Your task to perform on an android device: install app "Clock" Image 0: 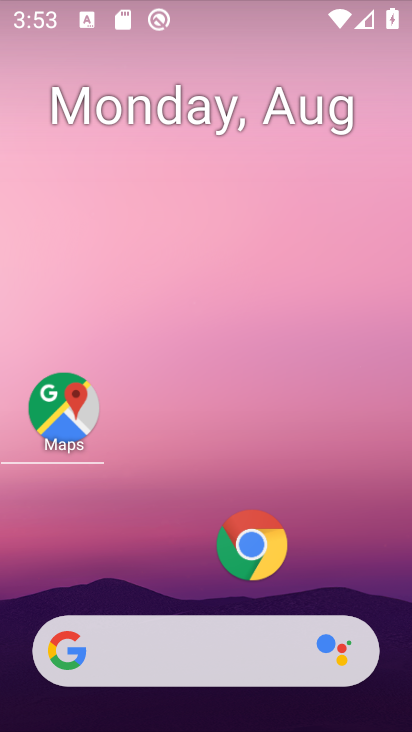
Step 0: drag from (228, 395) to (256, 46)
Your task to perform on an android device: install app "Clock" Image 1: 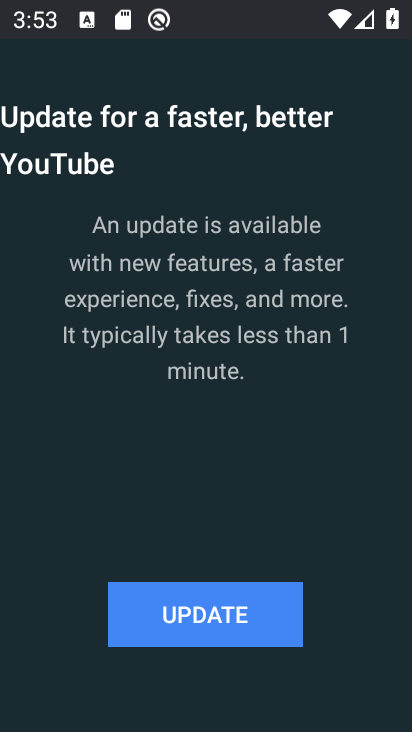
Step 1: press home button
Your task to perform on an android device: install app "Clock" Image 2: 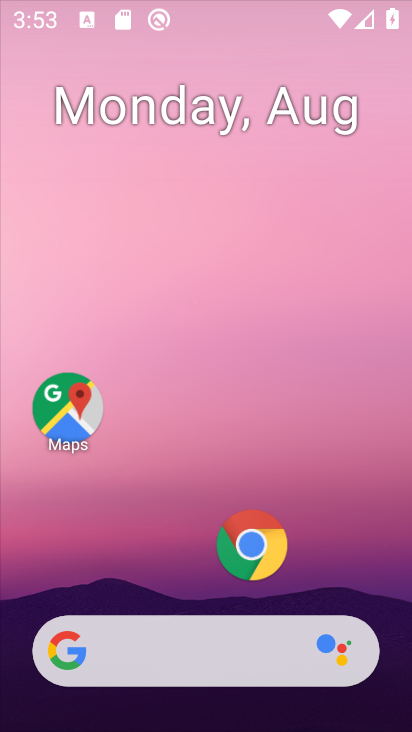
Step 2: drag from (196, 510) to (253, 18)
Your task to perform on an android device: install app "Clock" Image 3: 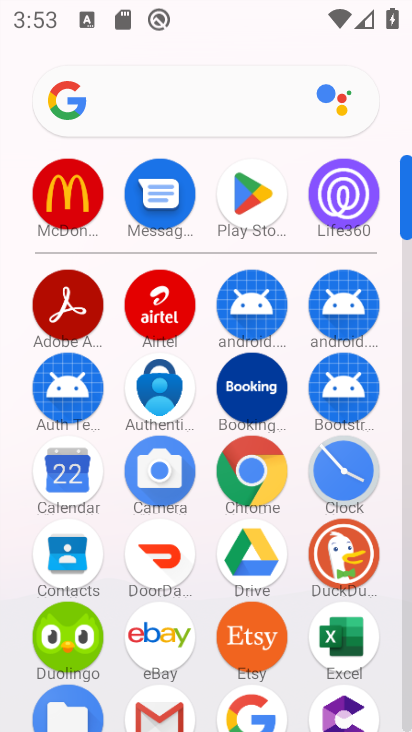
Step 3: click (257, 174)
Your task to perform on an android device: install app "Clock" Image 4: 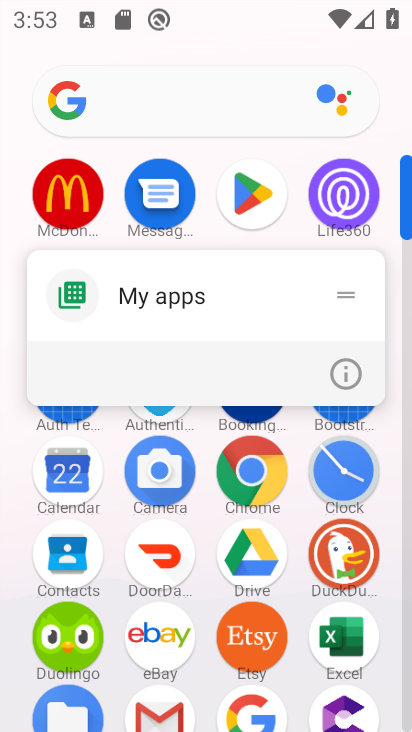
Step 4: click (259, 190)
Your task to perform on an android device: install app "Clock" Image 5: 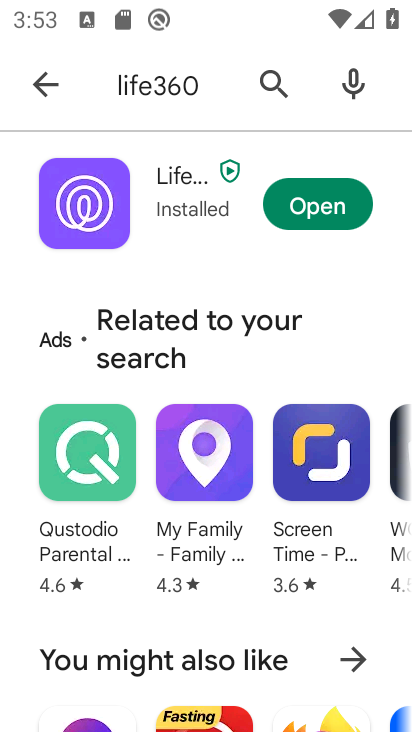
Step 5: click (291, 74)
Your task to perform on an android device: install app "Clock" Image 6: 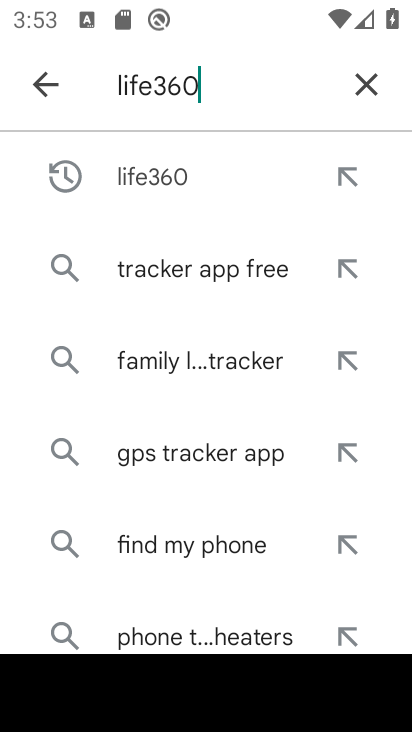
Step 6: click (370, 81)
Your task to perform on an android device: install app "Clock" Image 7: 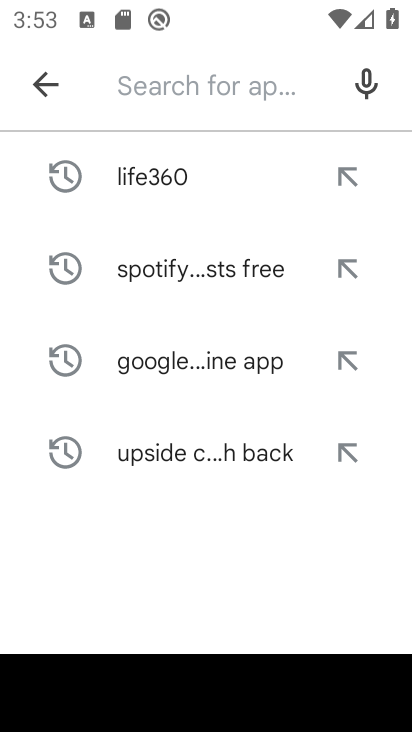
Step 7: click (148, 90)
Your task to perform on an android device: install app "Clock" Image 8: 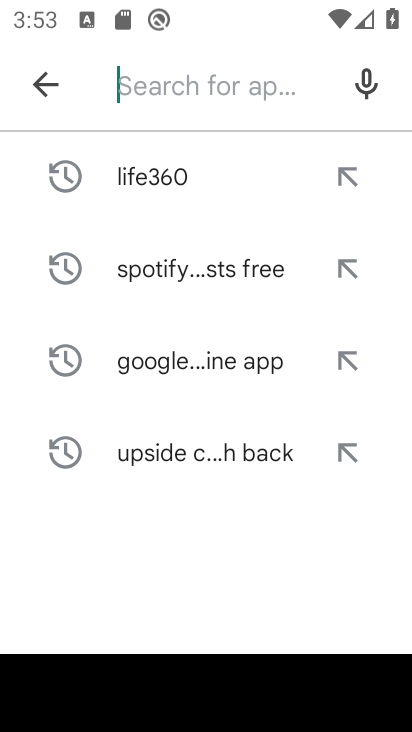
Step 8: type "Clock"
Your task to perform on an android device: install app "Clock" Image 9: 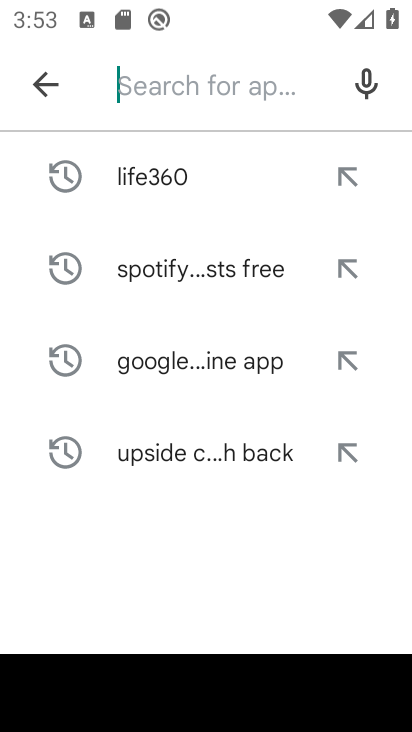
Step 9: click (162, 553)
Your task to perform on an android device: install app "Clock" Image 10: 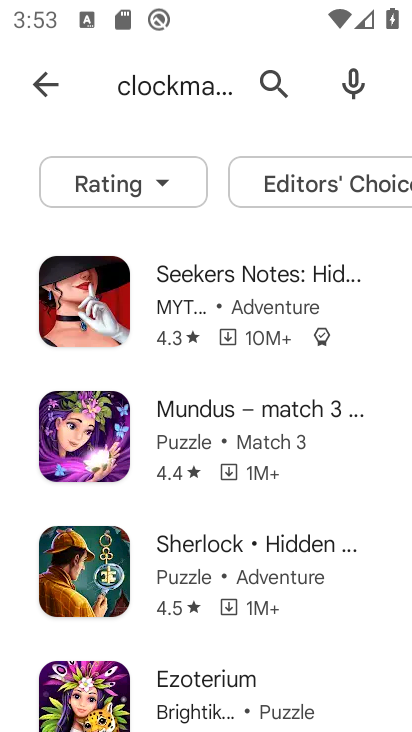
Step 10: click (265, 87)
Your task to perform on an android device: install app "Clock" Image 11: 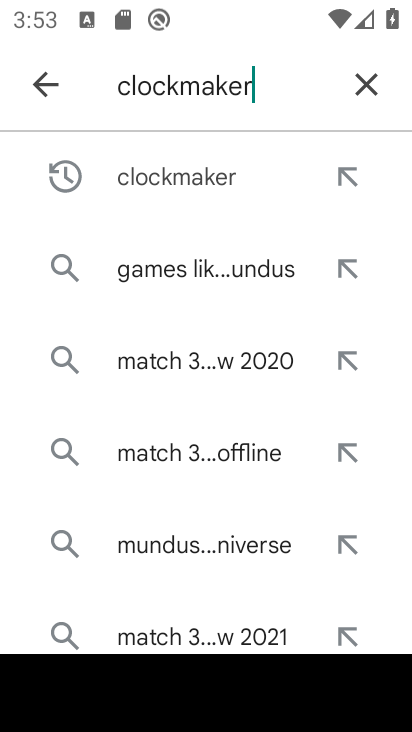
Step 11: click (367, 84)
Your task to perform on an android device: install app "Clock" Image 12: 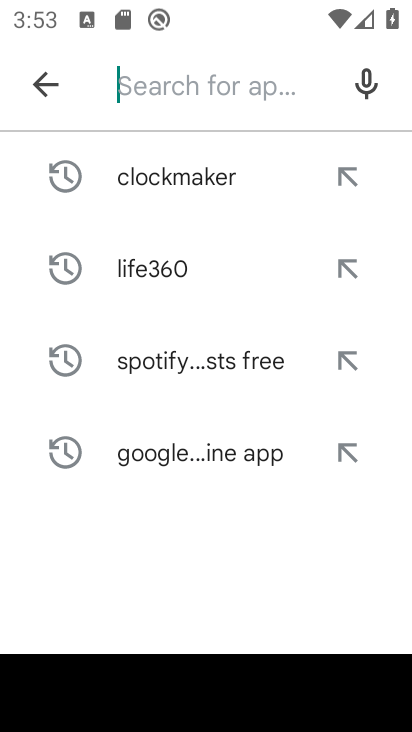
Step 12: type "Clock"
Your task to perform on an android device: install app "Clock" Image 13: 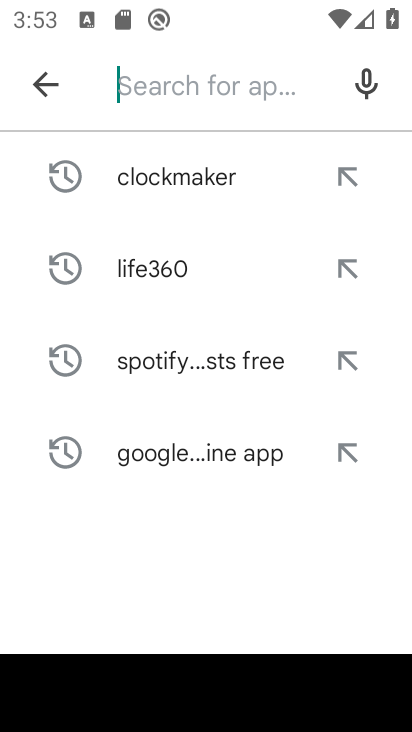
Step 13: click (225, 571)
Your task to perform on an android device: install app "Clock" Image 14: 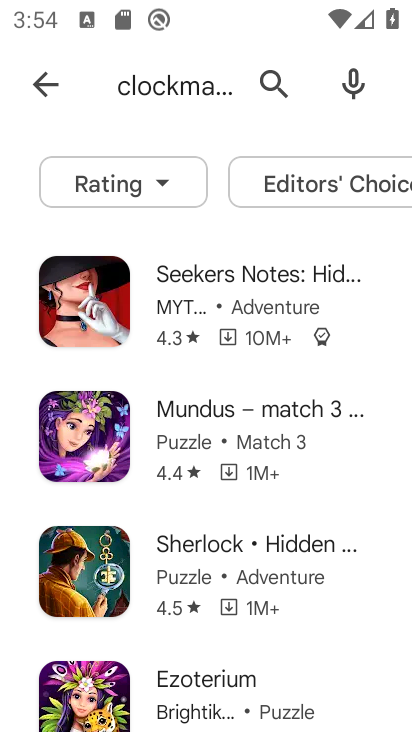
Step 14: click (265, 69)
Your task to perform on an android device: install app "Clock" Image 15: 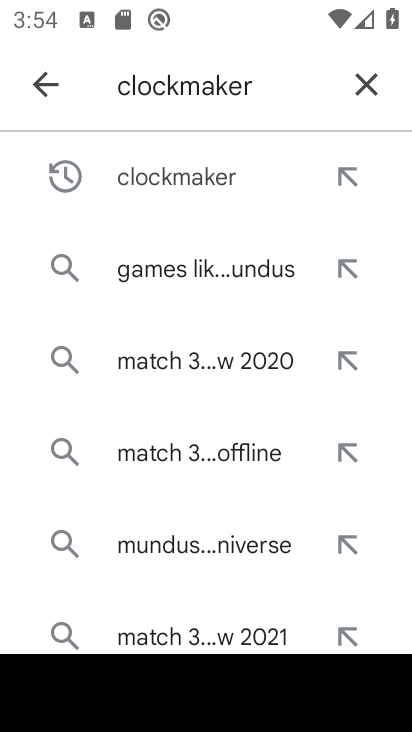
Step 15: click (366, 75)
Your task to perform on an android device: install app "Clock" Image 16: 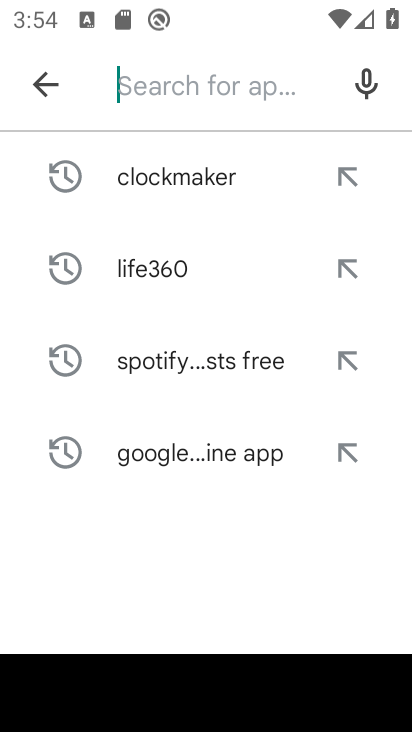
Step 16: type "Clock"
Your task to perform on an android device: install app "Clock" Image 17: 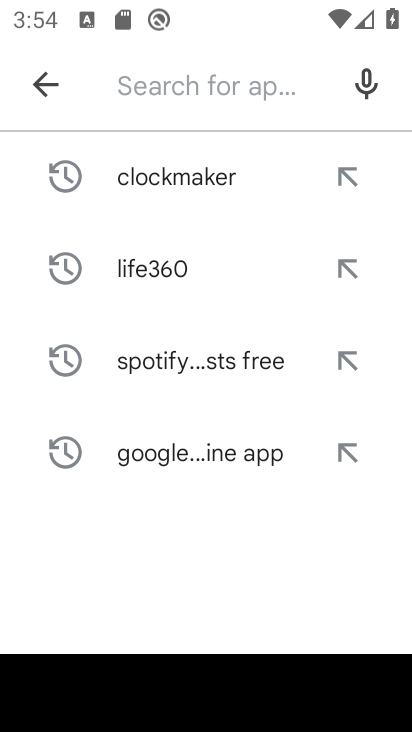
Step 17: click (157, 63)
Your task to perform on an android device: install app "Clock" Image 18: 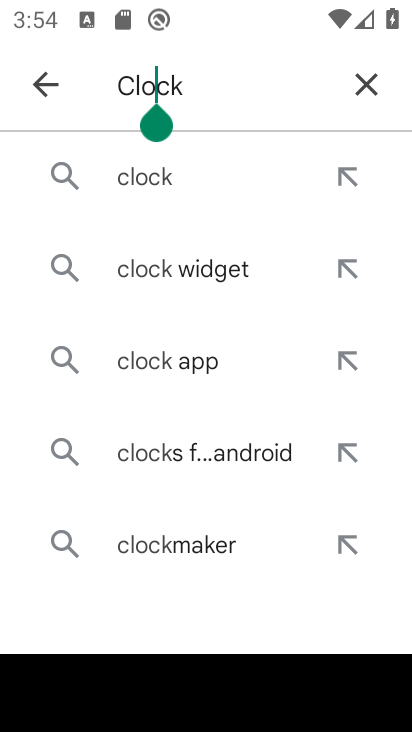
Step 18: click (163, 178)
Your task to perform on an android device: install app "Clock" Image 19: 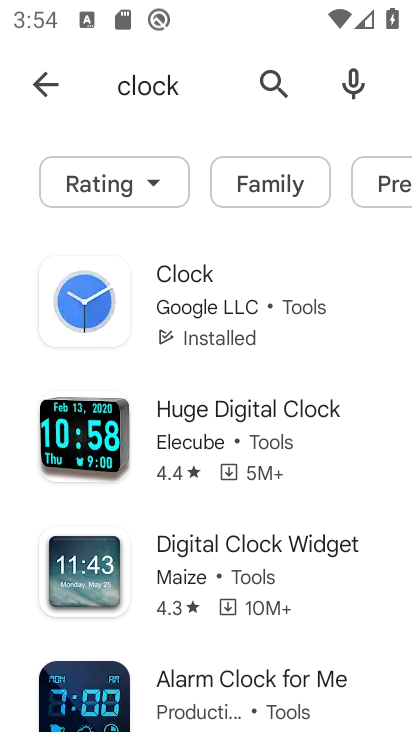
Step 19: click (193, 309)
Your task to perform on an android device: install app "Clock" Image 20: 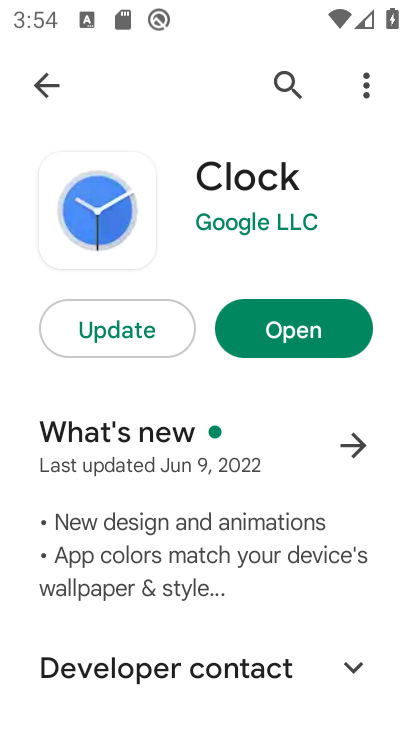
Step 20: task complete